Your task to perform on an android device: Go to eBay Image 0: 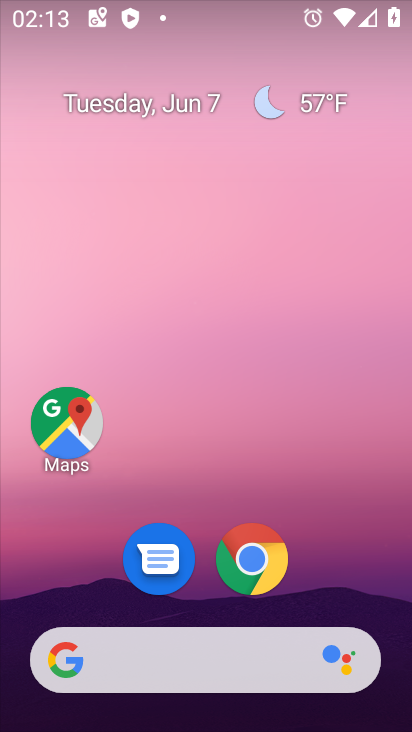
Step 0: click (251, 557)
Your task to perform on an android device: Go to eBay Image 1: 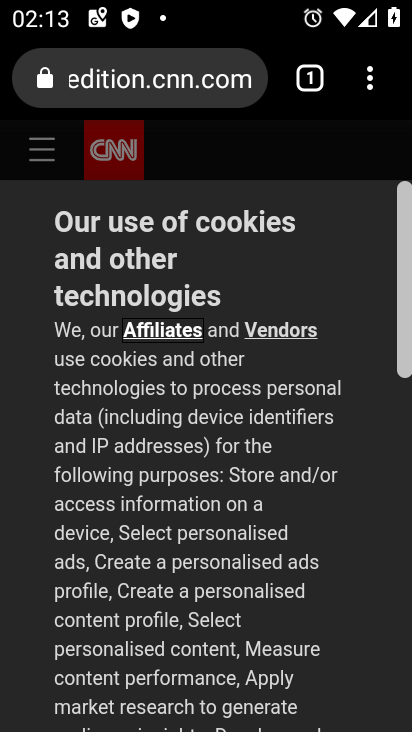
Step 1: click (249, 84)
Your task to perform on an android device: Go to eBay Image 2: 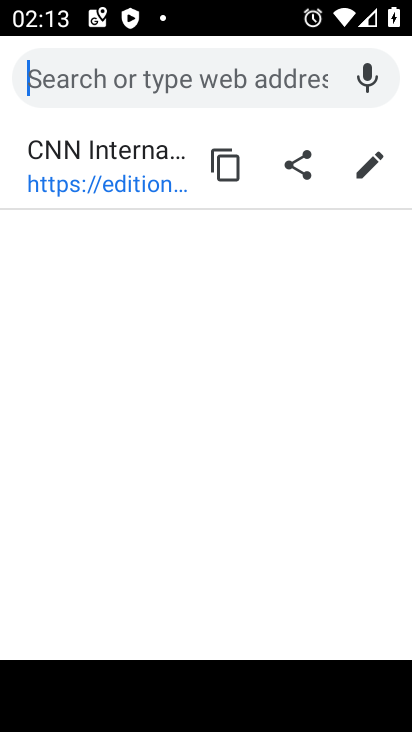
Step 2: type "eBay"
Your task to perform on an android device: Go to eBay Image 3: 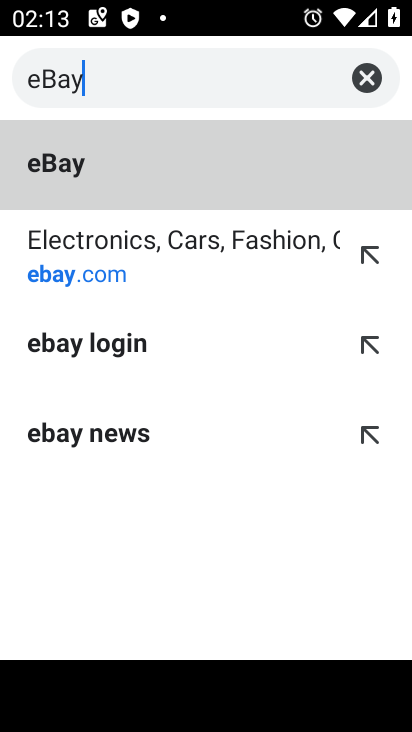
Step 3: click (213, 196)
Your task to perform on an android device: Go to eBay Image 4: 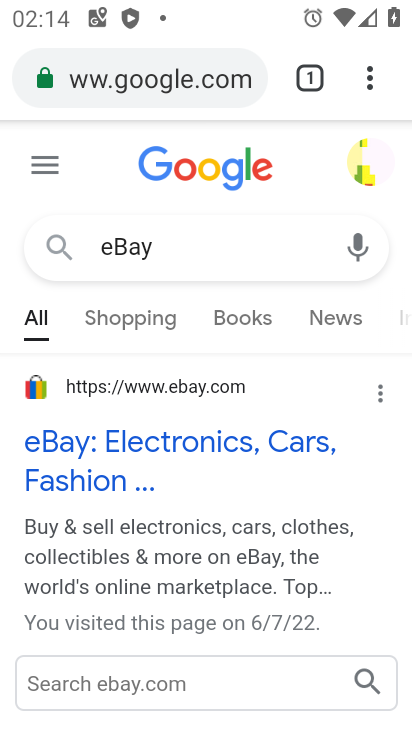
Step 4: click (196, 439)
Your task to perform on an android device: Go to eBay Image 5: 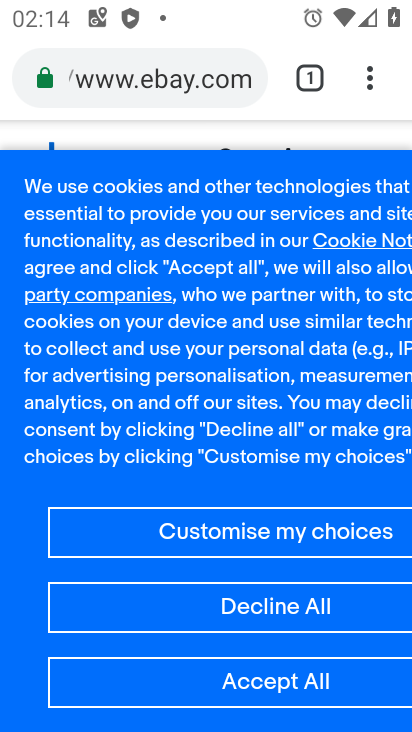
Step 5: click (211, 675)
Your task to perform on an android device: Go to eBay Image 6: 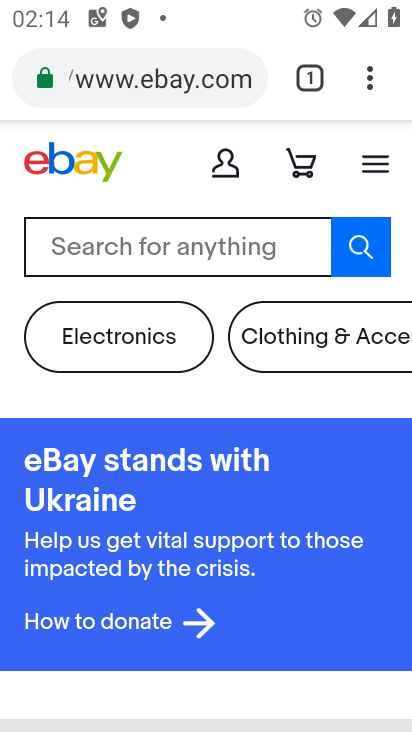
Step 6: task complete